Your task to perform on an android device: turn on location history Image 0: 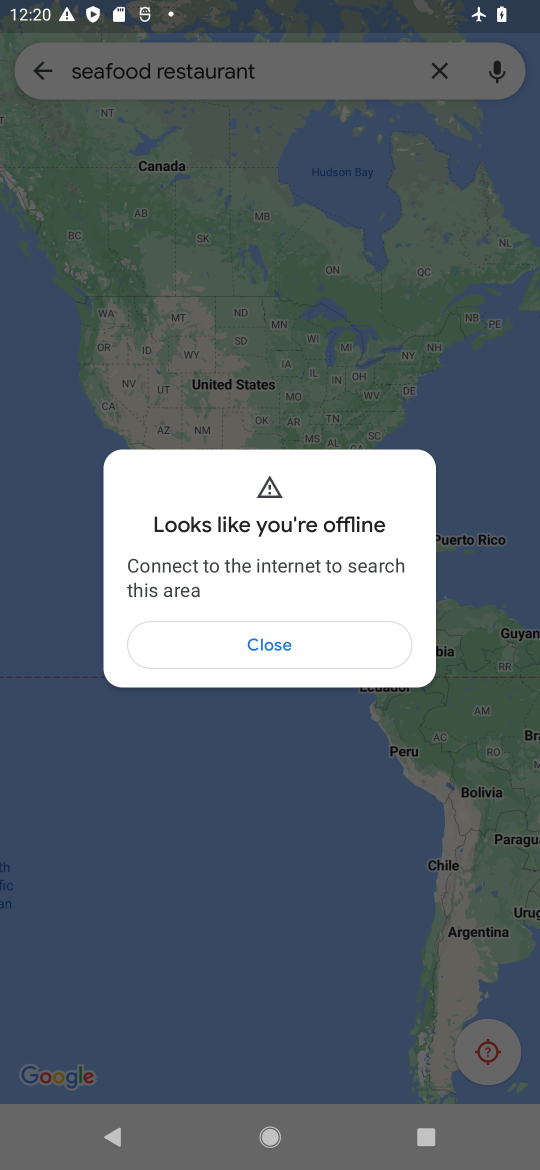
Step 0: press home button
Your task to perform on an android device: turn on location history Image 1: 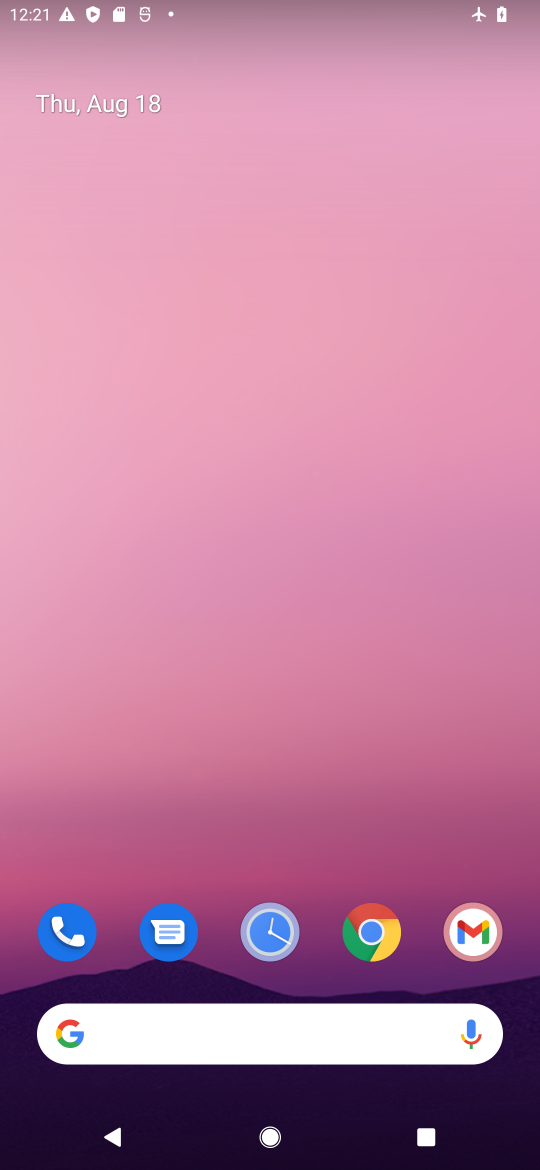
Step 1: drag from (312, 837) to (204, 211)
Your task to perform on an android device: turn on location history Image 2: 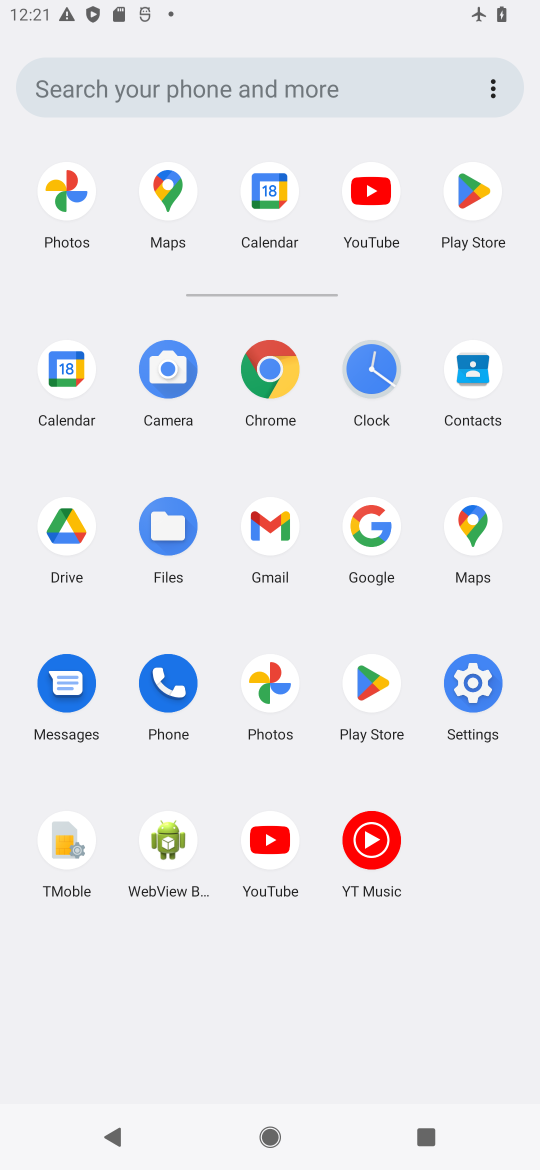
Step 2: click (482, 684)
Your task to perform on an android device: turn on location history Image 3: 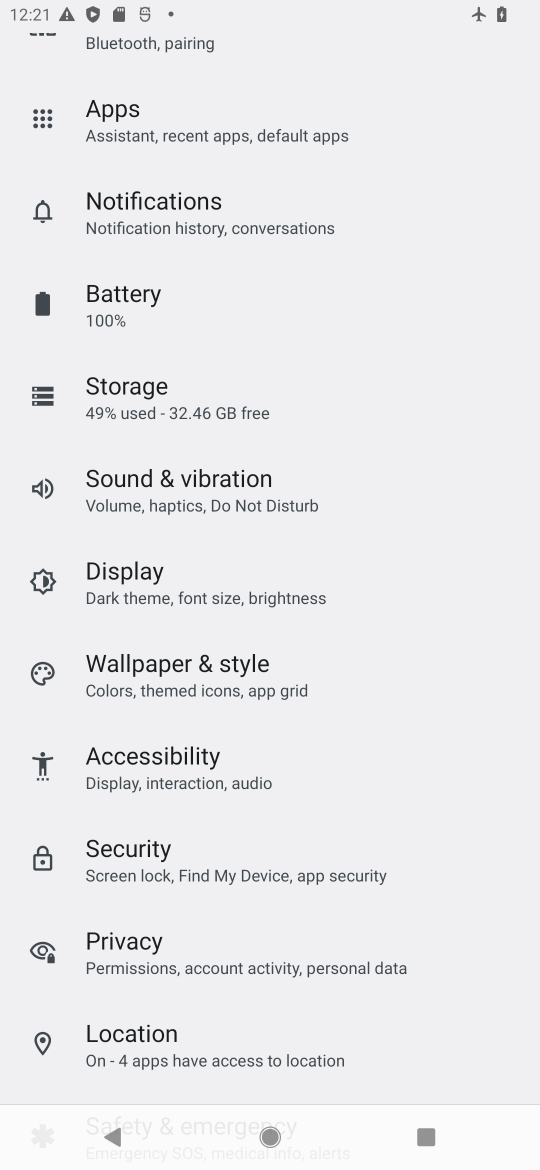
Step 3: click (136, 1029)
Your task to perform on an android device: turn on location history Image 4: 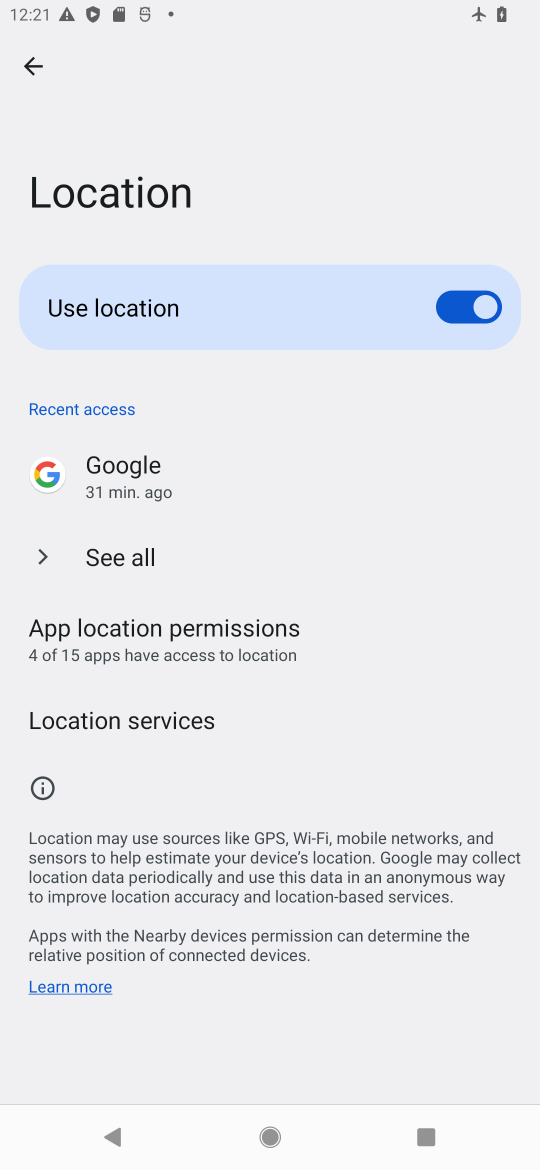
Step 4: click (140, 725)
Your task to perform on an android device: turn on location history Image 5: 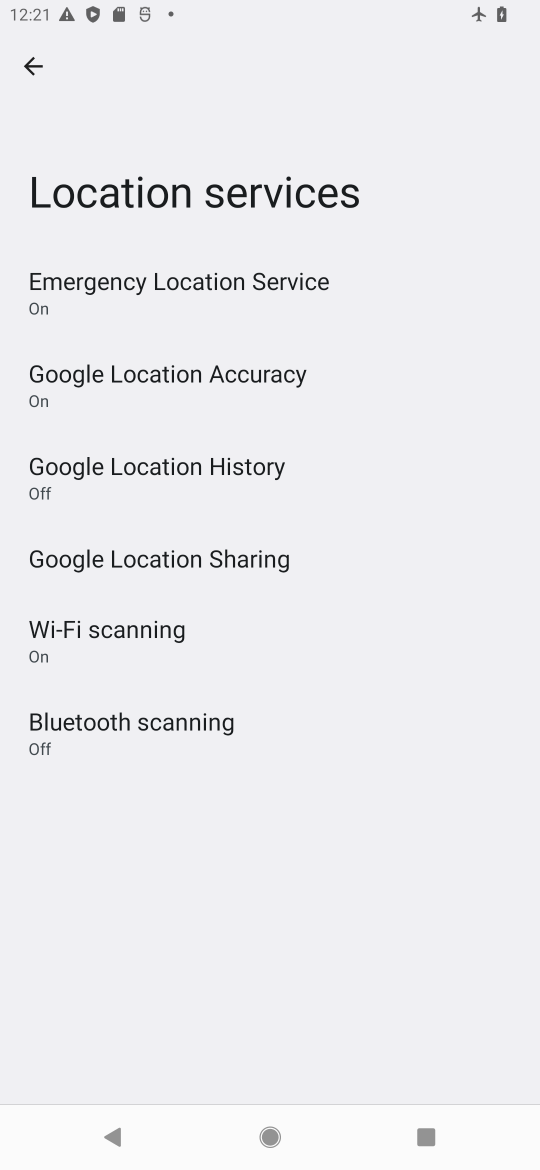
Step 5: click (178, 466)
Your task to perform on an android device: turn on location history Image 6: 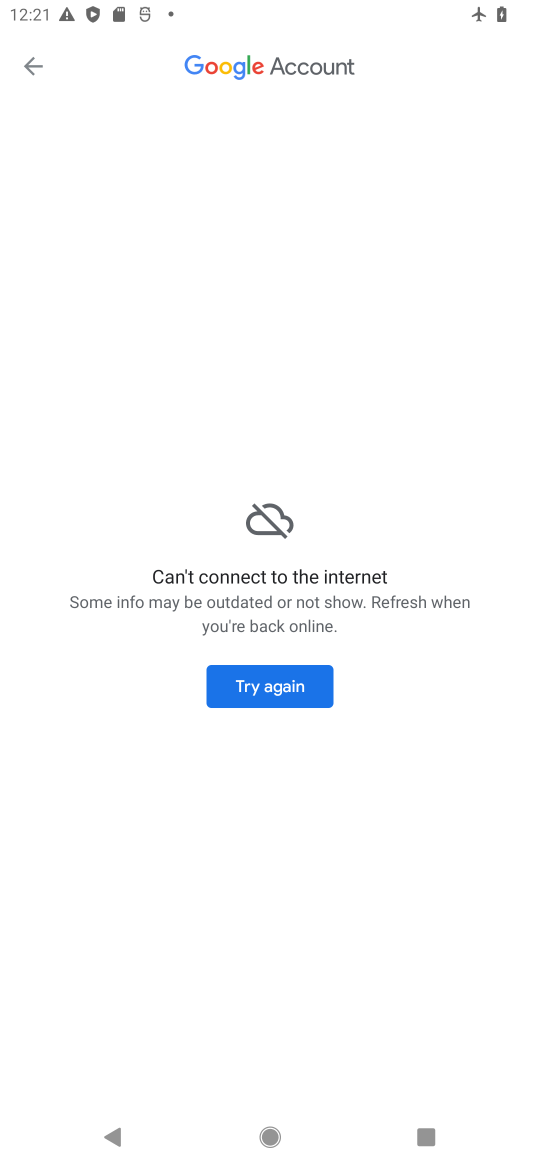
Step 6: click (271, 689)
Your task to perform on an android device: turn on location history Image 7: 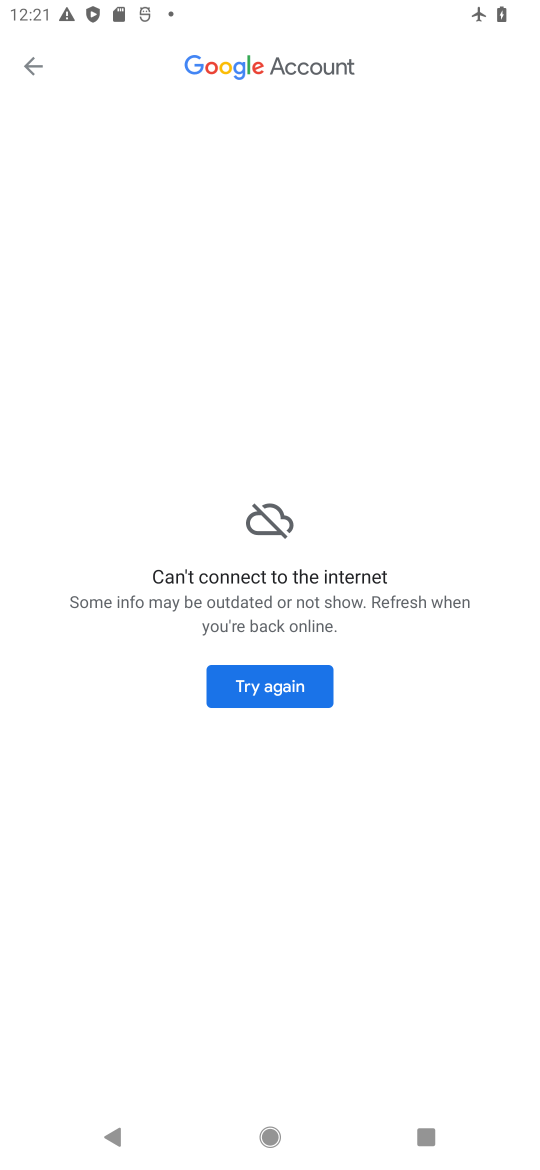
Step 7: task complete